Your task to perform on an android device: Search for seafood restaurants on Google Maps Image 0: 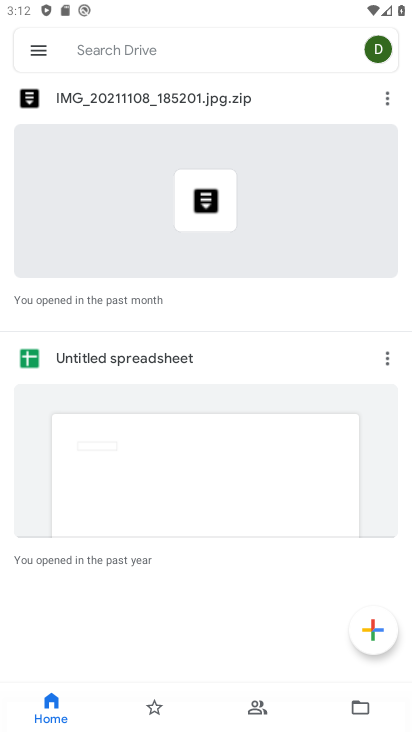
Step 0: press home button
Your task to perform on an android device: Search for seafood restaurants on Google Maps Image 1: 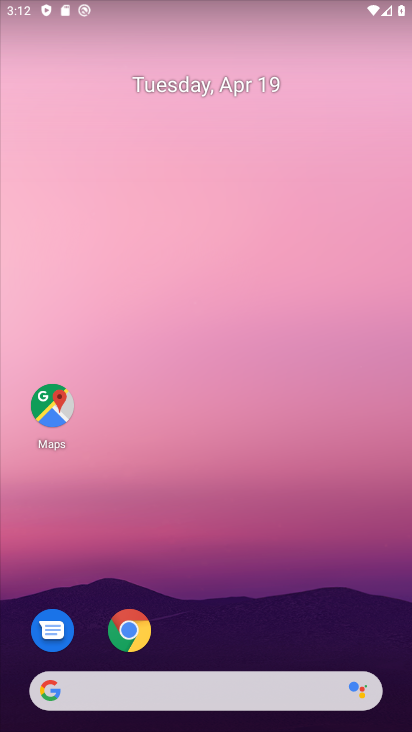
Step 1: drag from (239, 563) to (210, 60)
Your task to perform on an android device: Search for seafood restaurants on Google Maps Image 2: 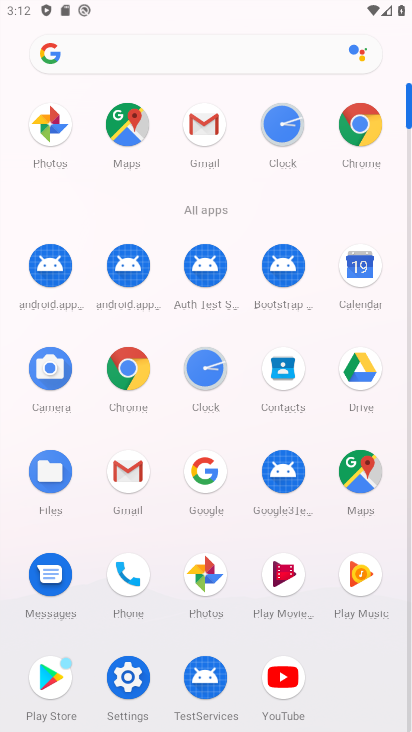
Step 2: click (124, 119)
Your task to perform on an android device: Search for seafood restaurants on Google Maps Image 3: 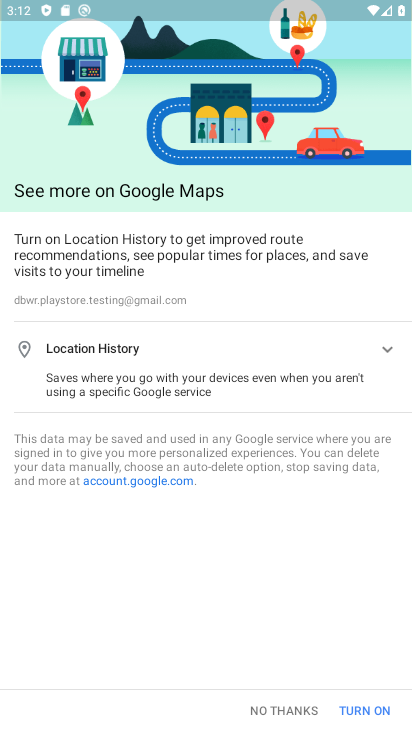
Step 3: click (296, 708)
Your task to perform on an android device: Search for seafood restaurants on Google Maps Image 4: 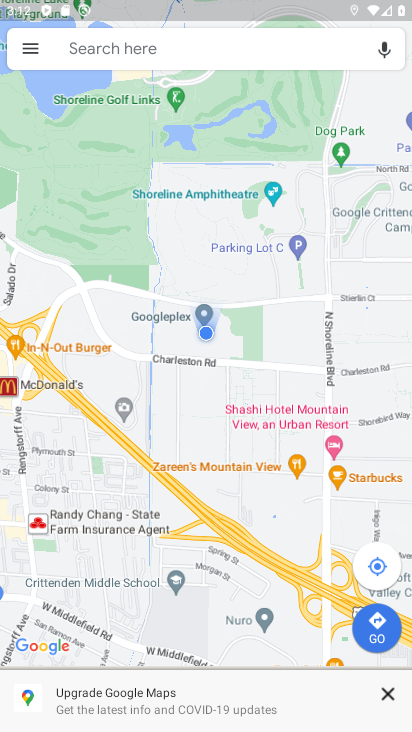
Step 4: click (180, 52)
Your task to perform on an android device: Search for seafood restaurants on Google Maps Image 5: 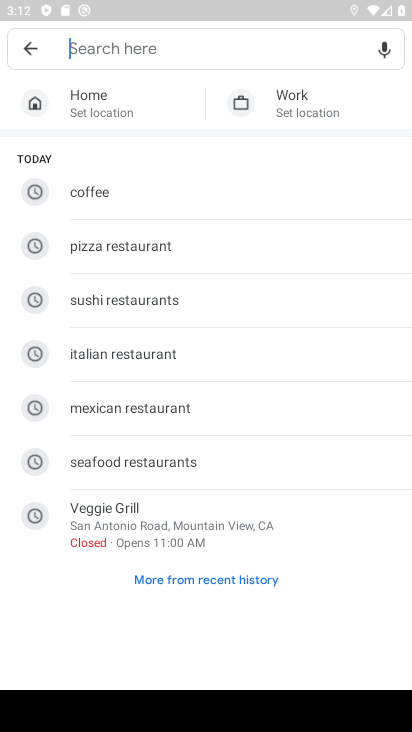
Step 5: click (180, 463)
Your task to perform on an android device: Search for seafood restaurants on Google Maps Image 6: 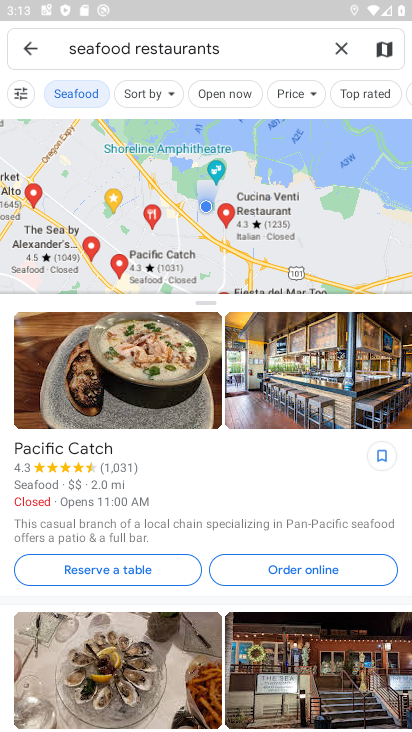
Step 6: task complete